Your task to perform on an android device: find snoozed emails in the gmail app Image 0: 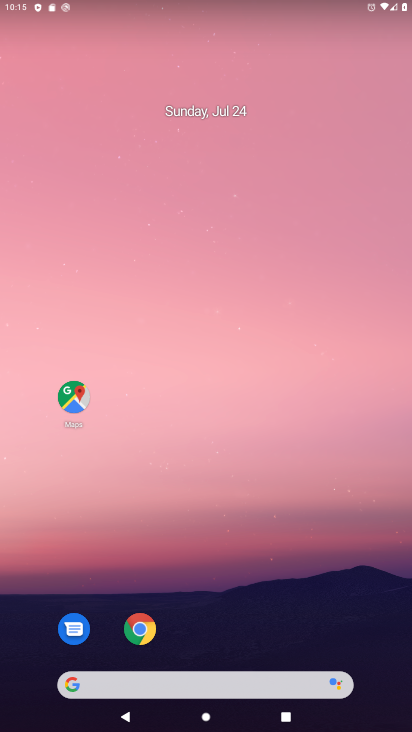
Step 0: drag from (158, 683) to (191, 238)
Your task to perform on an android device: find snoozed emails in the gmail app Image 1: 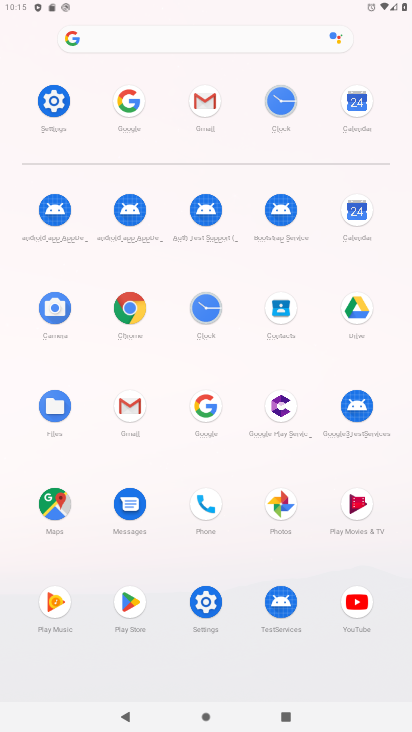
Step 1: click (129, 405)
Your task to perform on an android device: find snoozed emails in the gmail app Image 2: 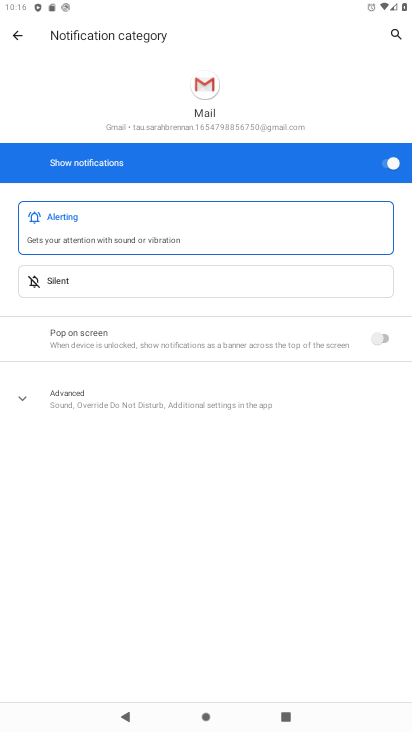
Step 2: press back button
Your task to perform on an android device: find snoozed emails in the gmail app Image 3: 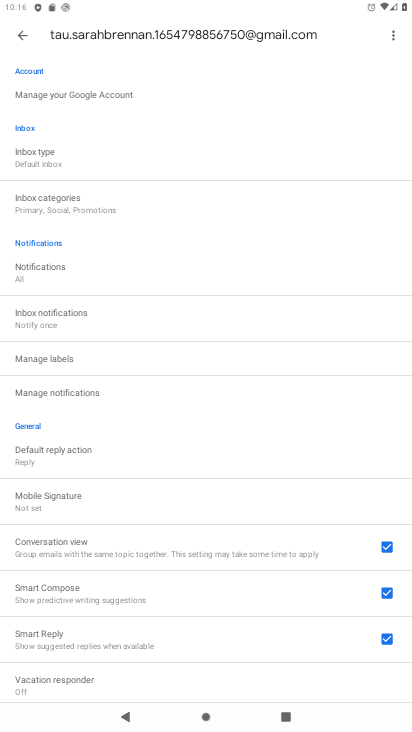
Step 3: press back button
Your task to perform on an android device: find snoozed emails in the gmail app Image 4: 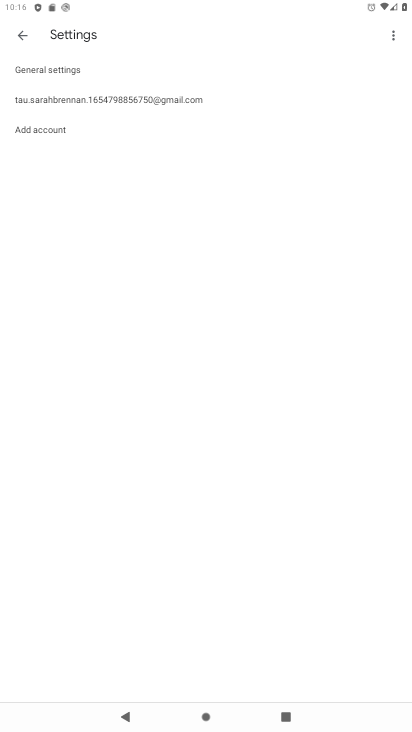
Step 4: press back button
Your task to perform on an android device: find snoozed emails in the gmail app Image 5: 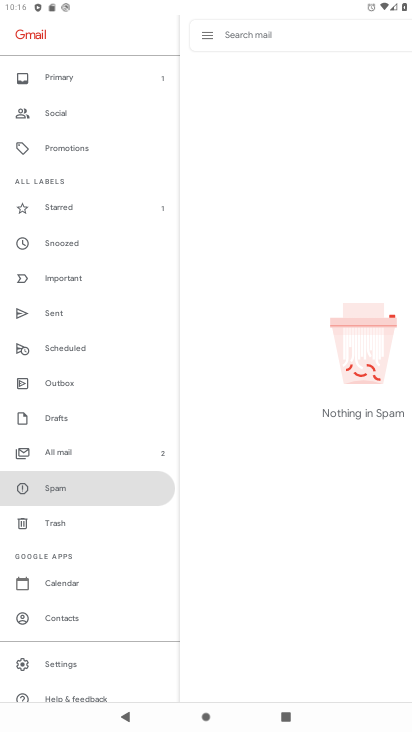
Step 5: click (102, 455)
Your task to perform on an android device: find snoozed emails in the gmail app Image 6: 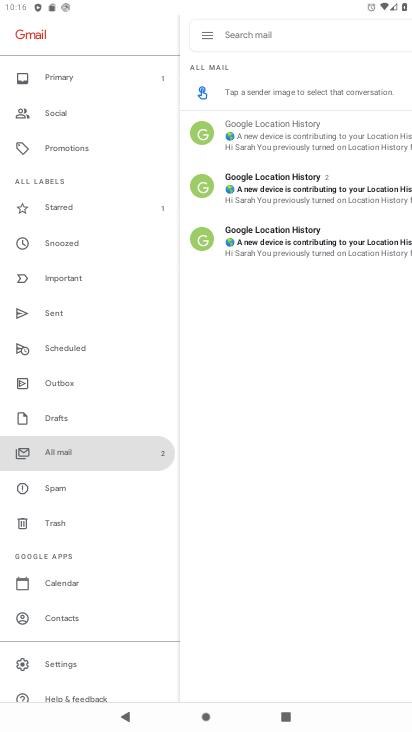
Step 6: click (110, 247)
Your task to perform on an android device: find snoozed emails in the gmail app Image 7: 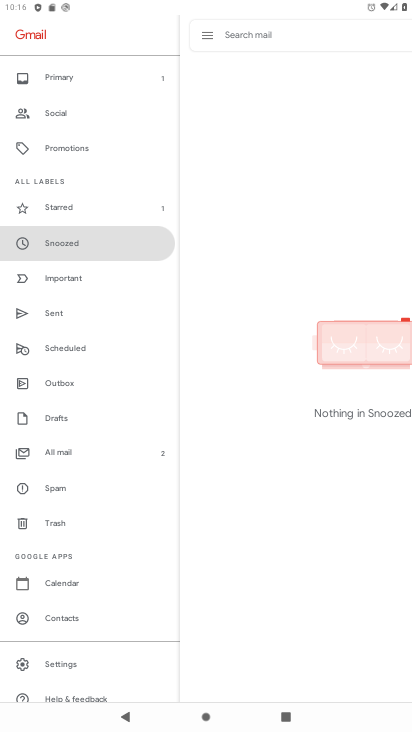
Step 7: click (66, 460)
Your task to perform on an android device: find snoozed emails in the gmail app Image 8: 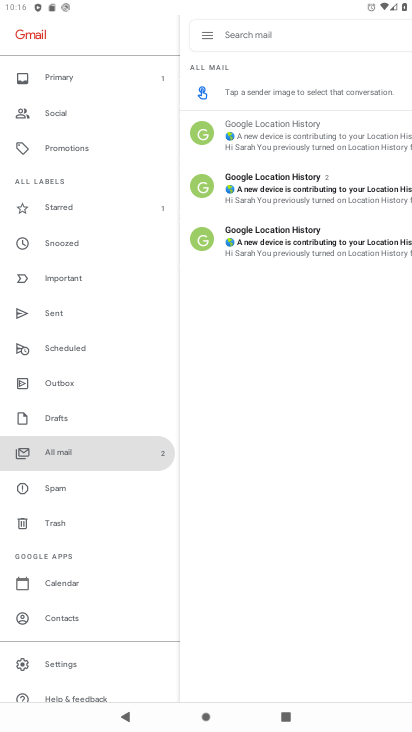
Step 8: task complete